Your task to perform on an android device: toggle translation in the chrome app Image 0: 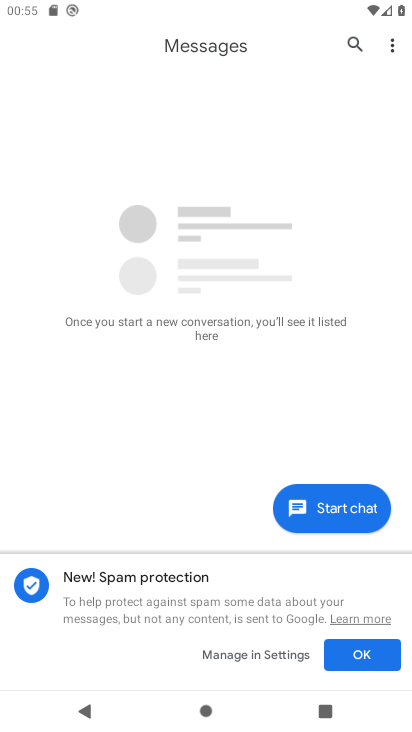
Step 0: press home button
Your task to perform on an android device: toggle translation in the chrome app Image 1: 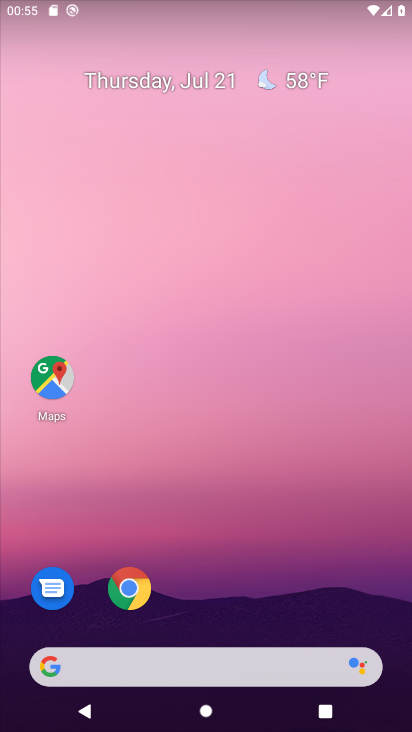
Step 1: click (122, 583)
Your task to perform on an android device: toggle translation in the chrome app Image 2: 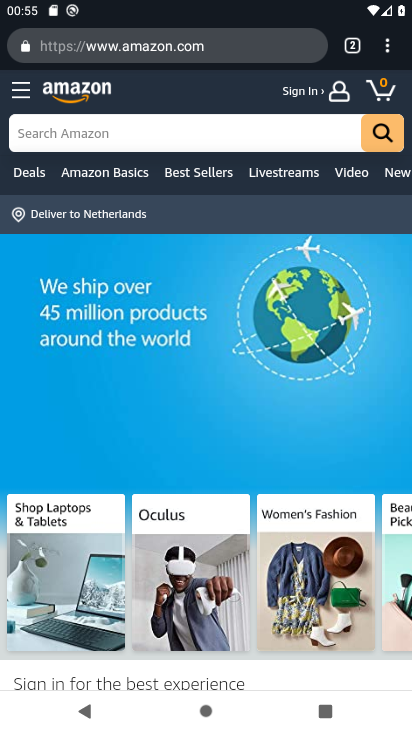
Step 2: click (384, 49)
Your task to perform on an android device: toggle translation in the chrome app Image 3: 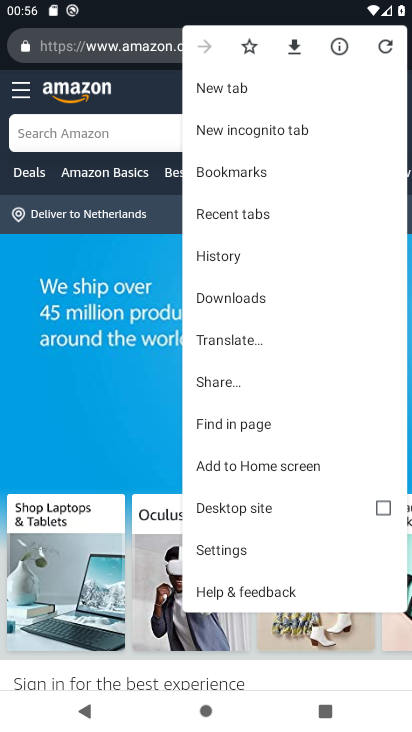
Step 3: click (217, 544)
Your task to perform on an android device: toggle translation in the chrome app Image 4: 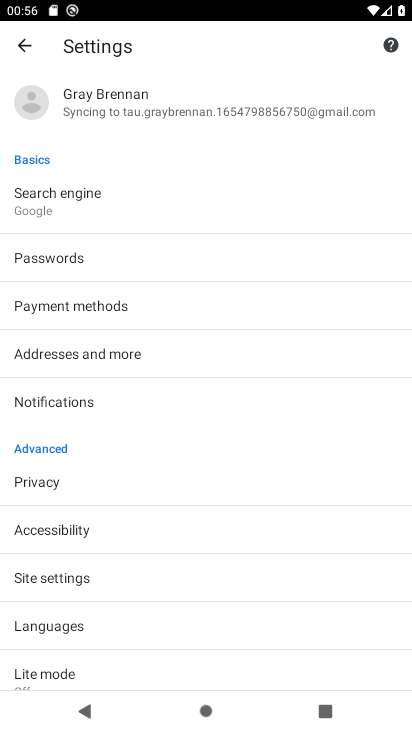
Step 4: click (71, 625)
Your task to perform on an android device: toggle translation in the chrome app Image 5: 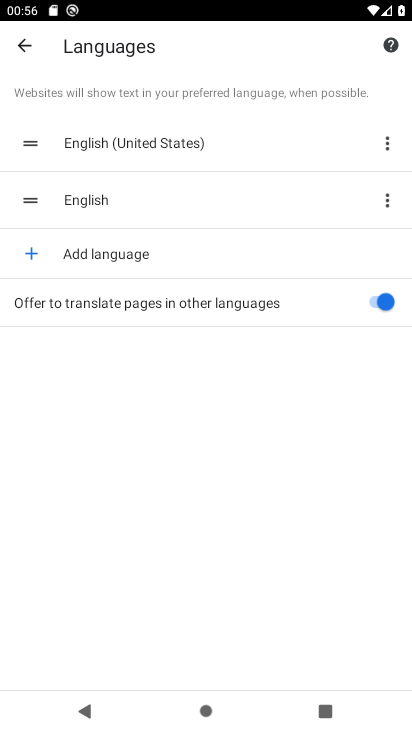
Step 5: click (331, 307)
Your task to perform on an android device: toggle translation in the chrome app Image 6: 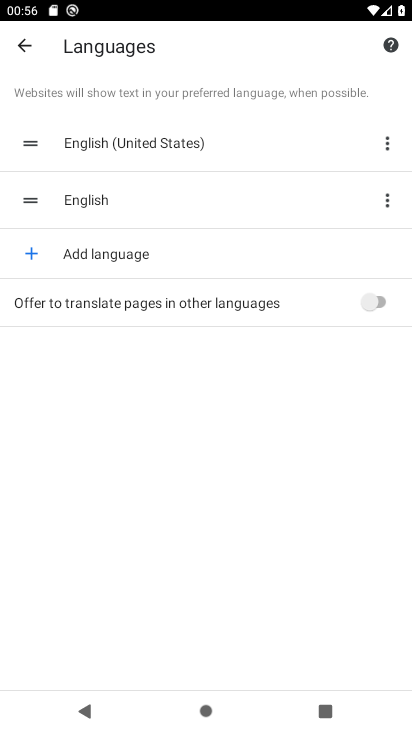
Step 6: task complete